Your task to perform on an android device: turn off data saver in the chrome app Image 0: 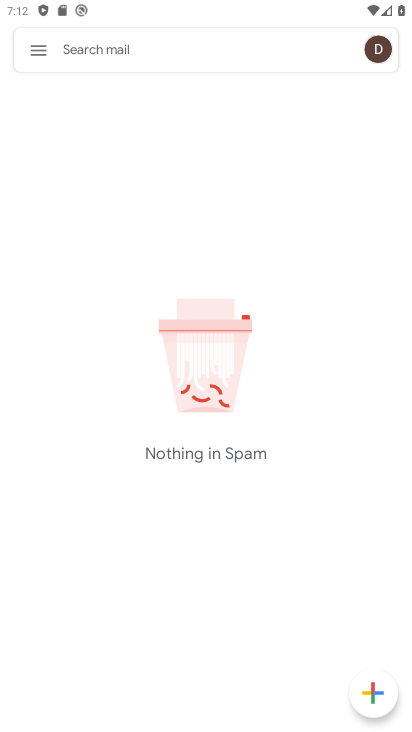
Step 0: press home button
Your task to perform on an android device: turn off data saver in the chrome app Image 1: 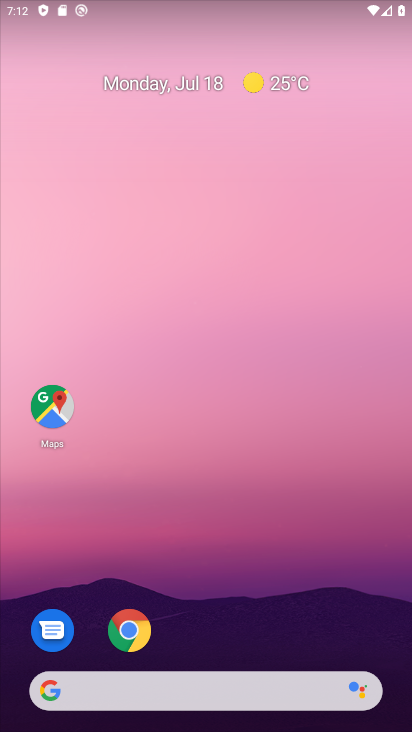
Step 1: drag from (227, 696) to (159, 269)
Your task to perform on an android device: turn off data saver in the chrome app Image 2: 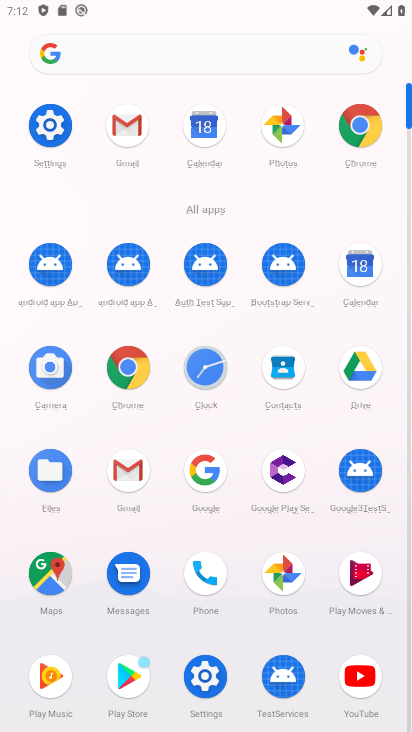
Step 2: click (361, 131)
Your task to perform on an android device: turn off data saver in the chrome app Image 3: 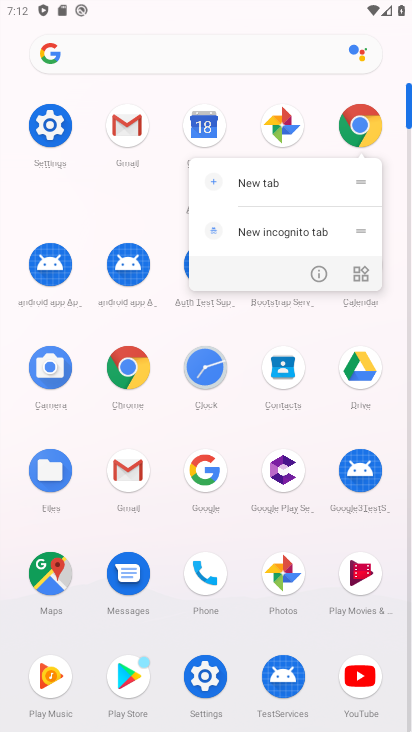
Step 3: click (362, 122)
Your task to perform on an android device: turn off data saver in the chrome app Image 4: 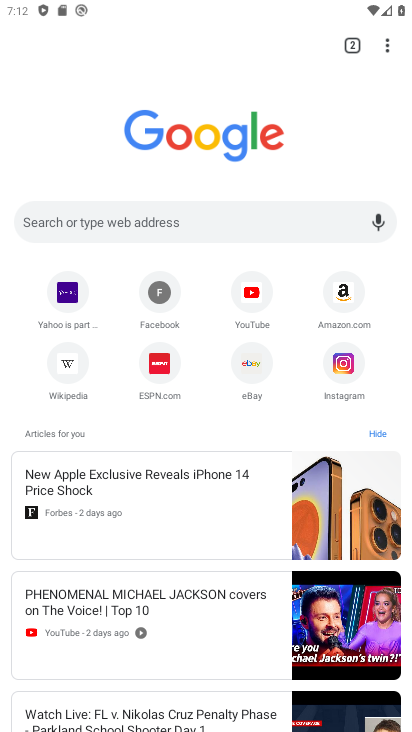
Step 4: click (386, 55)
Your task to perform on an android device: turn off data saver in the chrome app Image 5: 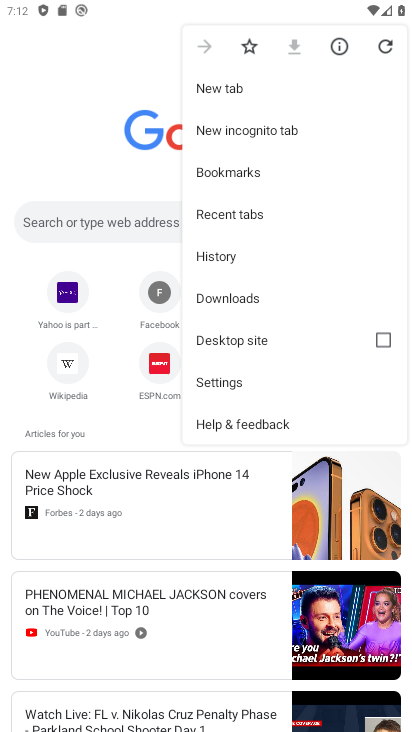
Step 5: click (219, 381)
Your task to perform on an android device: turn off data saver in the chrome app Image 6: 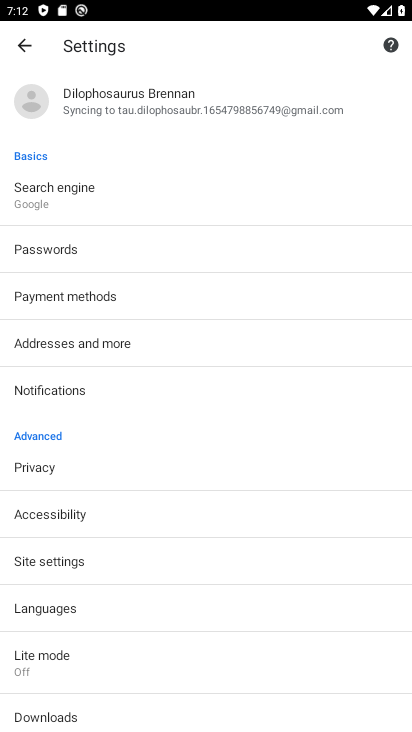
Step 6: click (50, 659)
Your task to perform on an android device: turn off data saver in the chrome app Image 7: 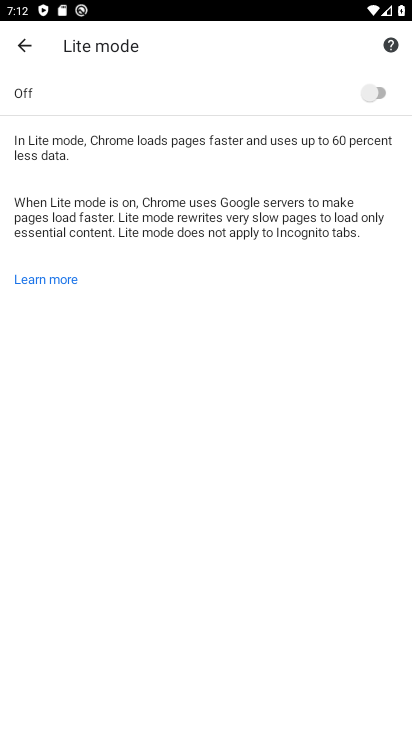
Step 7: click (359, 98)
Your task to perform on an android device: turn off data saver in the chrome app Image 8: 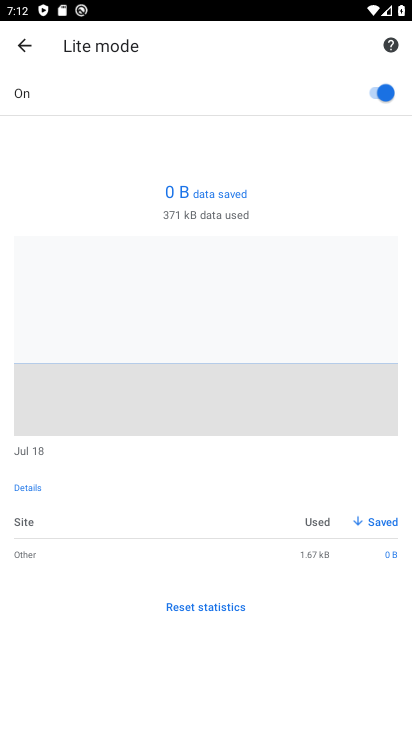
Step 8: click (355, 98)
Your task to perform on an android device: turn off data saver in the chrome app Image 9: 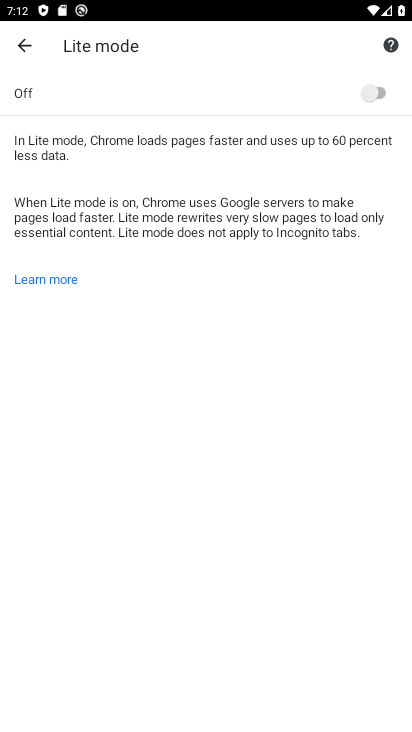
Step 9: task complete